Your task to perform on an android device: Set the phone to "Do not disturb". Image 0: 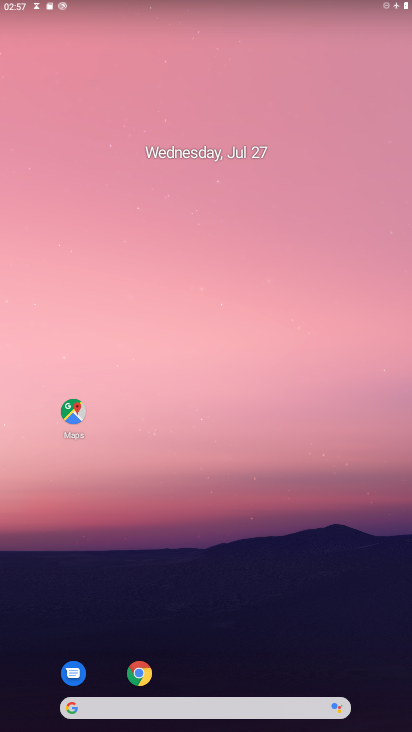
Step 0: drag from (133, 16) to (140, 398)
Your task to perform on an android device: Set the phone to "Do not disturb". Image 1: 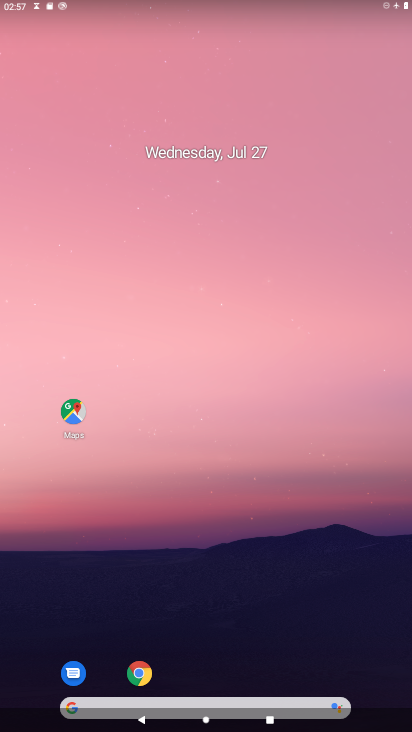
Step 1: task complete